Your task to perform on an android device: change the clock display to show seconds Image 0: 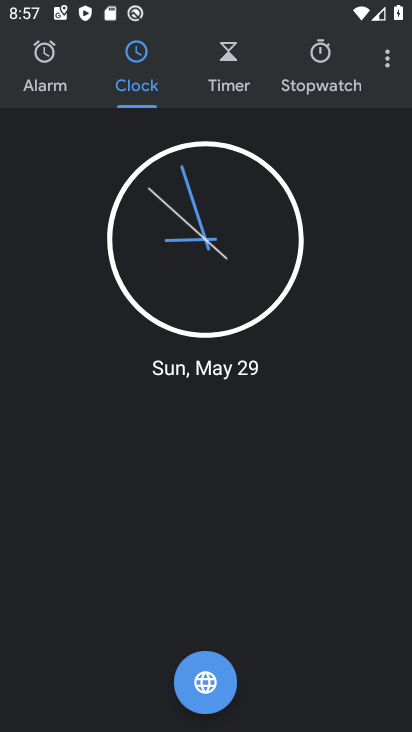
Step 0: click (381, 71)
Your task to perform on an android device: change the clock display to show seconds Image 1: 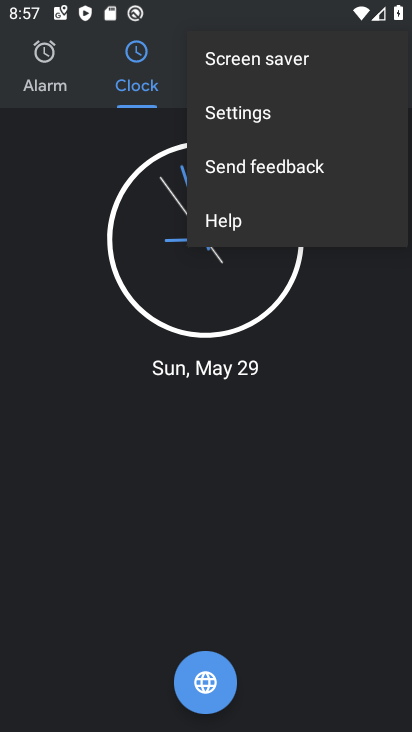
Step 1: click (236, 111)
Your task to perform on an android device: change the clock display to show seconds Image 2: 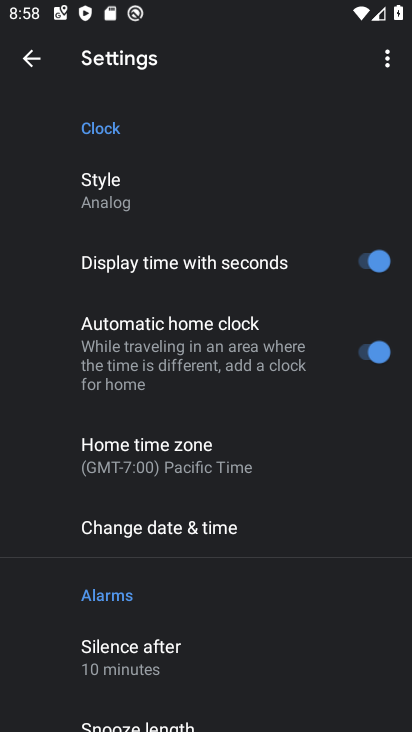
Step 2: task complete